Your task to perform on an android device: Do I have any events this weekend? Image 0: 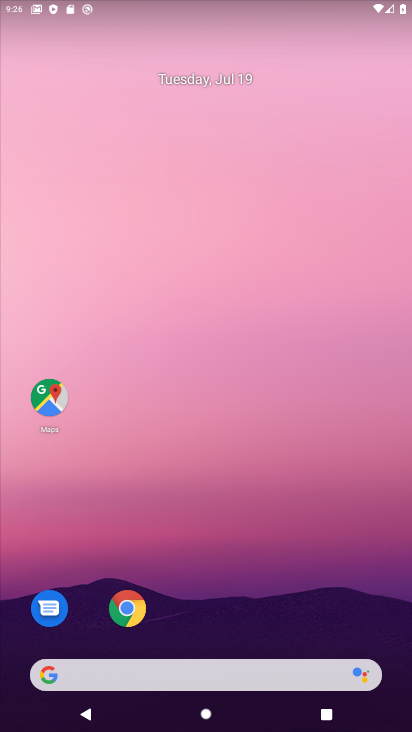
Step 0: drag from (297, 651) to (264, 136)
Your task to perform on an android device: Do I have any events this weekend? Image 1: 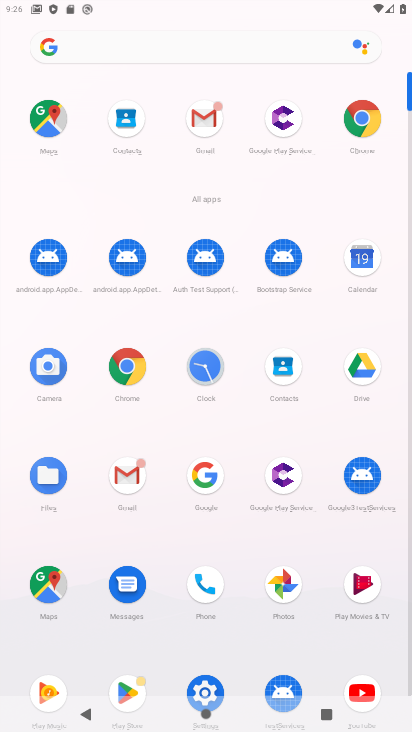
Step 1: click (361, 118)
Your task to perform on an android device: Do I have any events this weekend? Image 2: 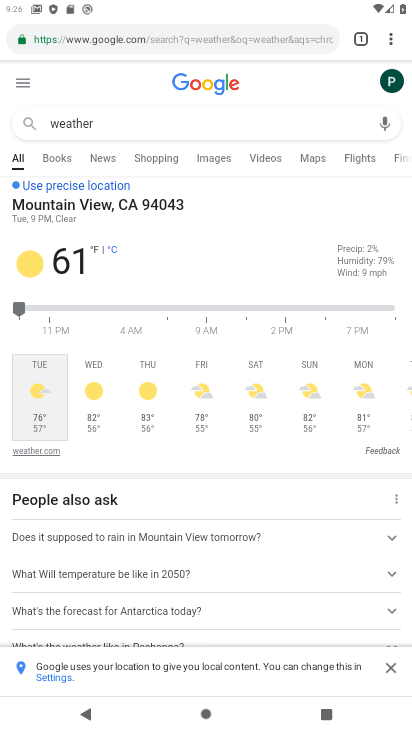
Step 2: click (254, 396)
Your task to perform on an android device: Do I have any events this weekend? Image 3: 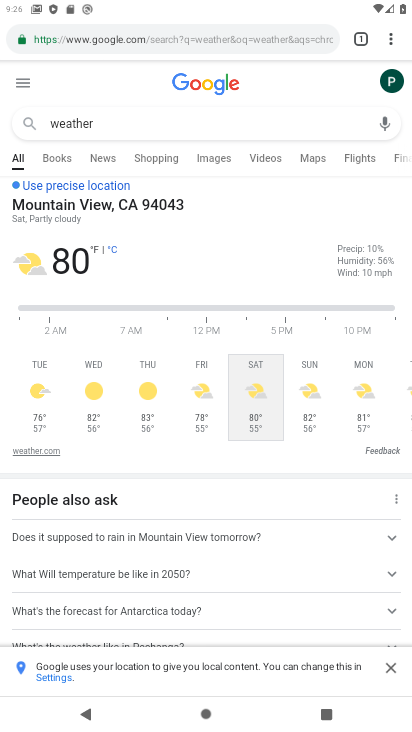
Step 3: task complete